Your task to perform on an android device: set an alarm Image 0: 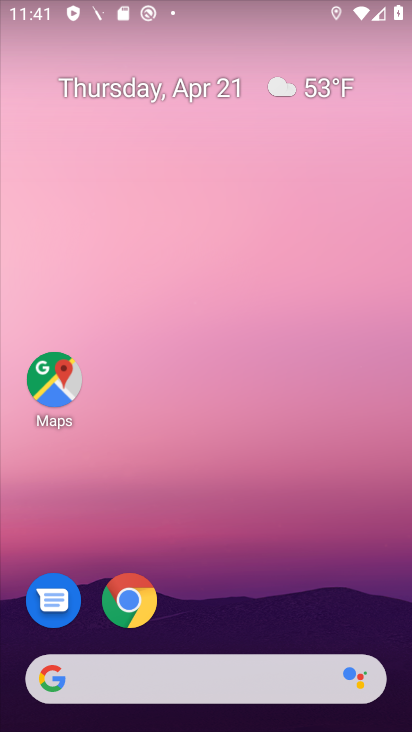
Step 0: drag from (236, 517) to (229, 38)
Your task to perform on an android device: set an alarm Image 1: 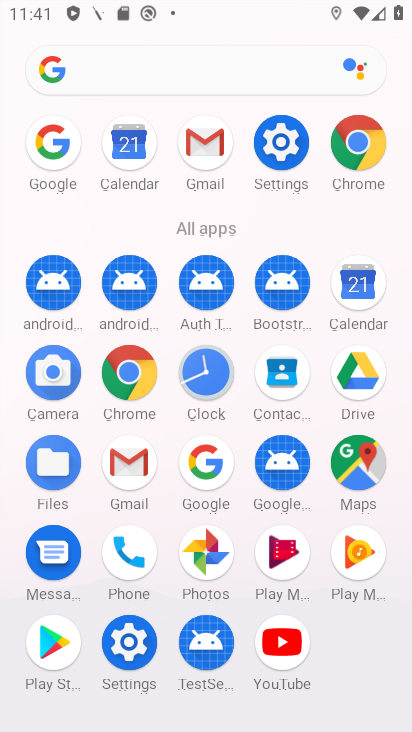
Step 1: click (205, 385)
Your task to perform on an android device: set an alarm Image 2: 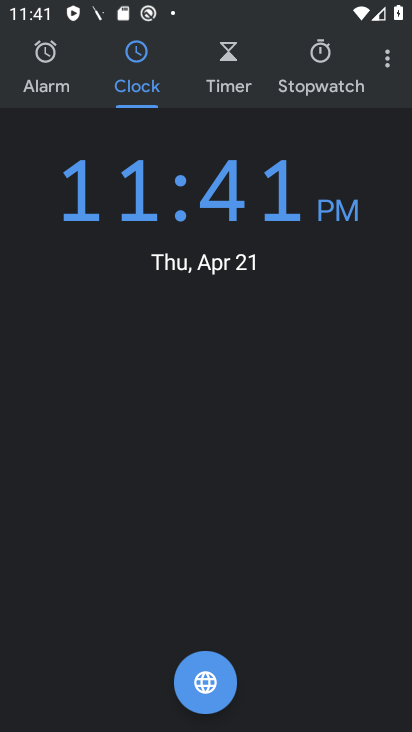
Step 2: click (56, 68)
Your task to perform on an android device: set an alarm Image 3: 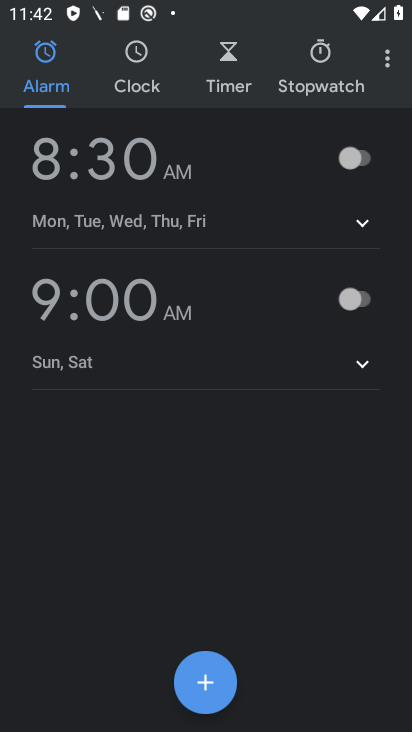
Step 3: click (217, 695)
Your task to perform on an android device: set an alarm Image 4: 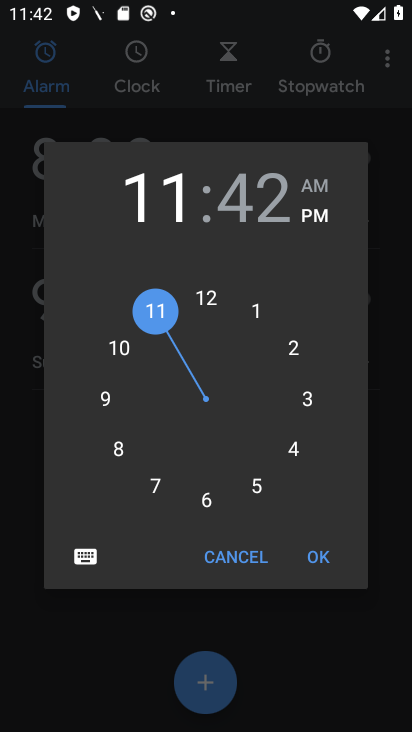
Step 4: click (258, 319)
Your task to perform on an android device: set an alarm Image 5: 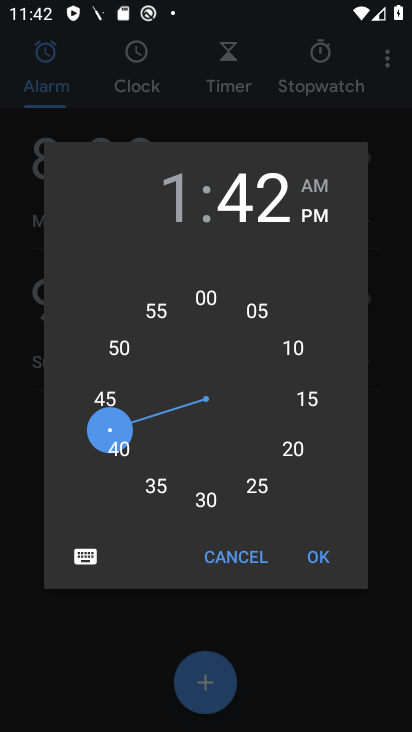
Step 5: click (326, 562)
Your task to perform on an android device: set an alarm Image 6: 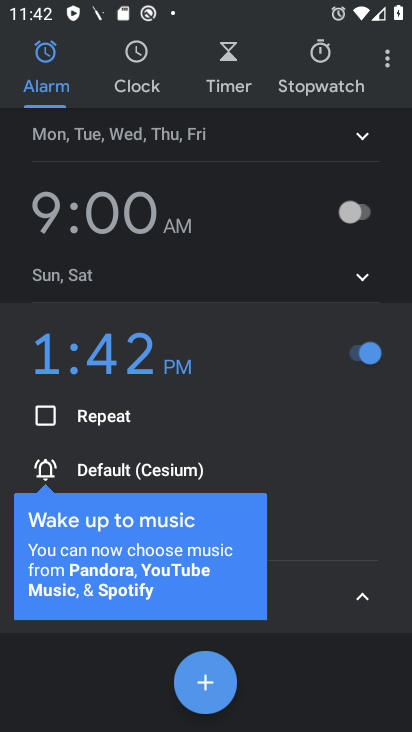
Step 6: task complete